Your task to perform on an android device: Go to eBay Image 0: 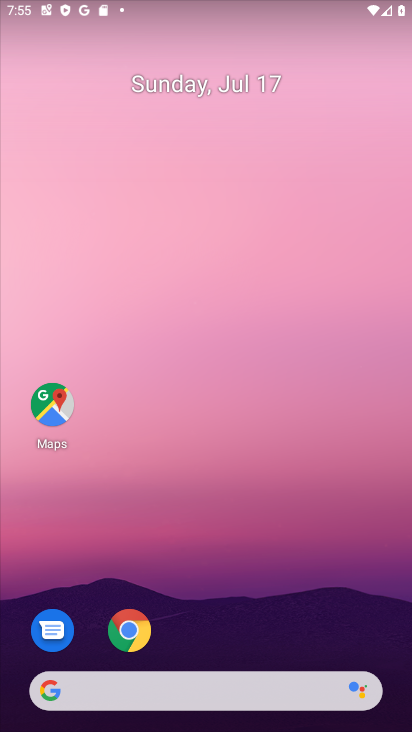
Step 0: drag from (164, 421) to (199, 59)
Your task to perform on an android device: Go to eBay Image 1: 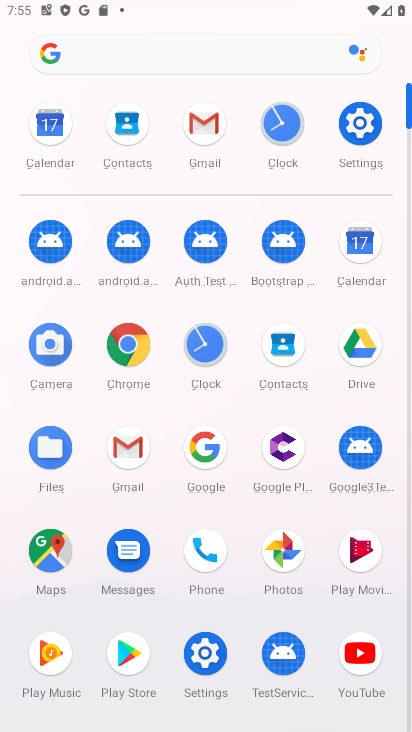
Step 1: click (136, 337)
Your task to perform on an android device: Go to eBay Image 2: 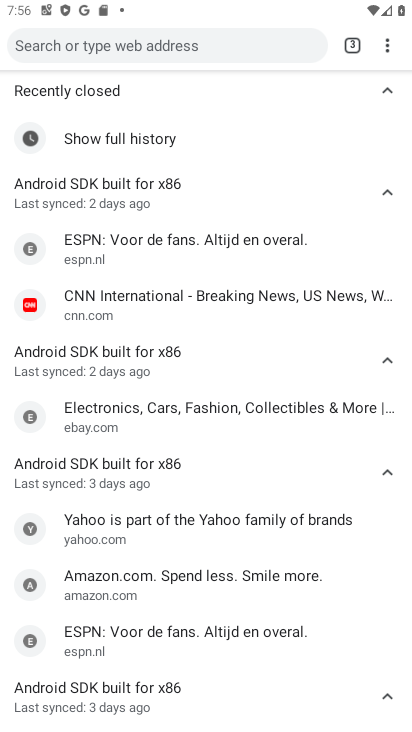
Step 2: press back button
Your task to perform on an android device: Go to eBay Image 3: 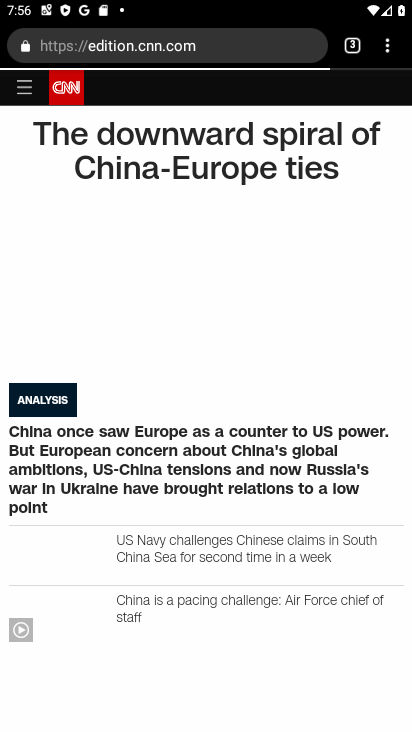
Step 3: click (182, 38)
Your task to perform on an android device: Go to eBay Image 4: 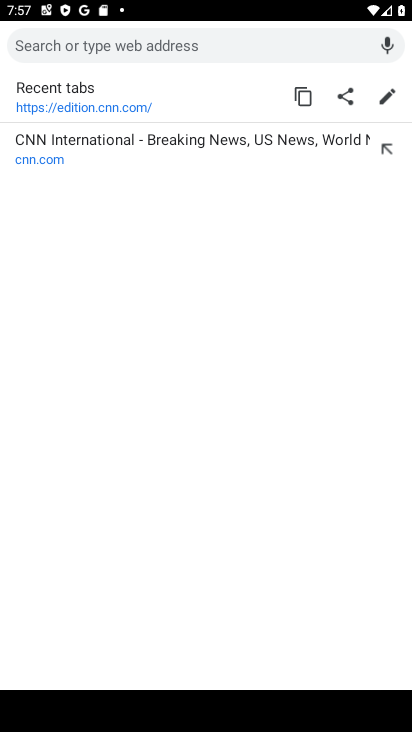
Step 4: type "www.ebay.com"
Your task to perform on an android device: Go to eBay Image 5: 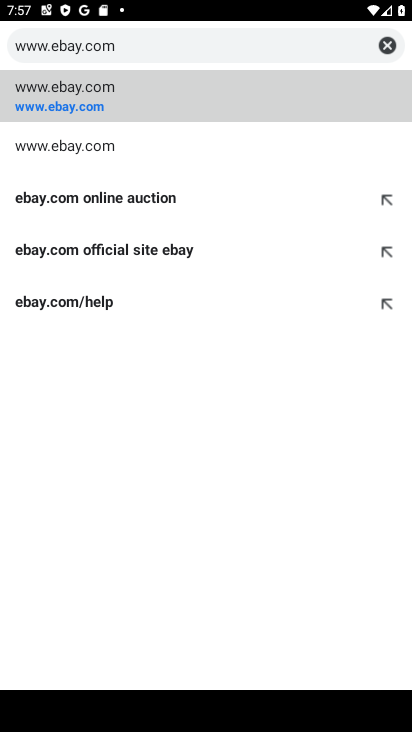
Step 5: click (59, 105)
Your task to perform on an android device: Go to eBay Image 6: 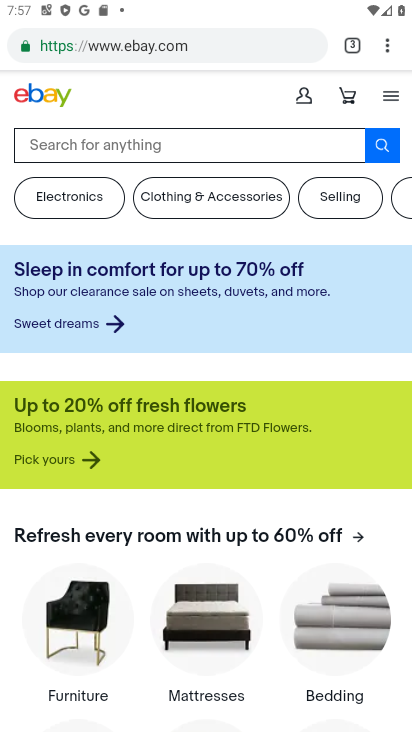
Step 6: task complete